Your task to perform on an android device: Open Google Chrome and click the shortcut for Amazon.com Image 0: 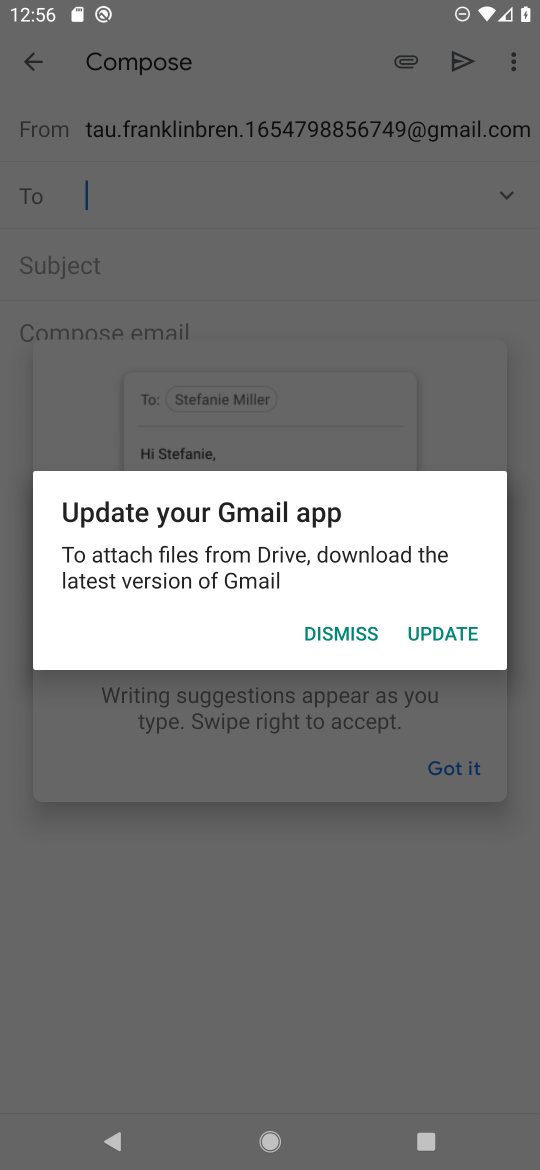
Step 0: press home button
Your task to perform on an android device: Open Google Chrome and click the shortcut for Amazon.com Image 1: 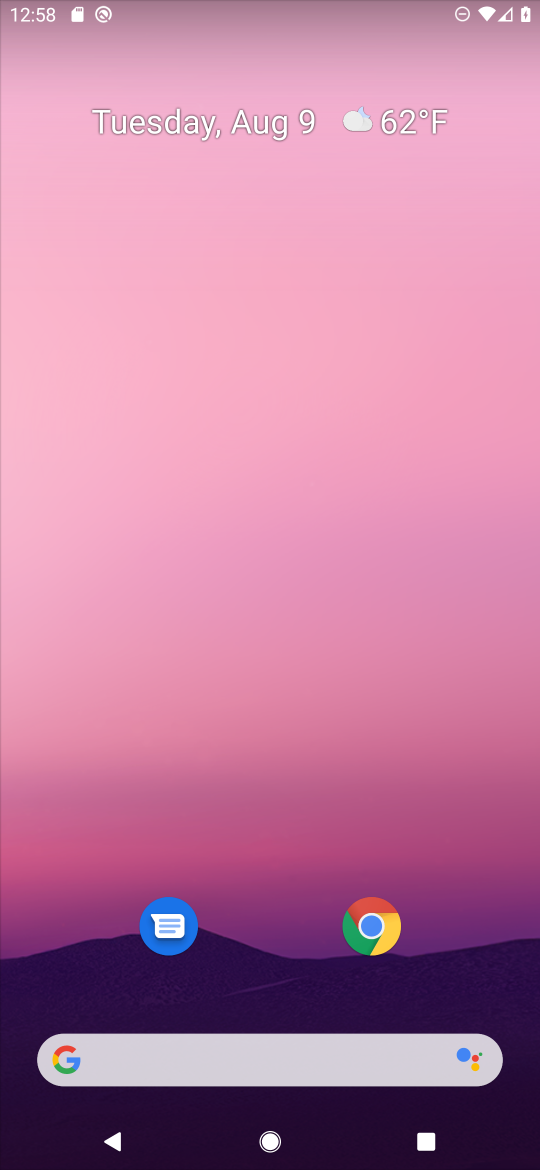
Step 1: click (367, 939)
Your task to perform on an android device: Open Google Chrome and click the shortcut for Amazon.com Image 2: 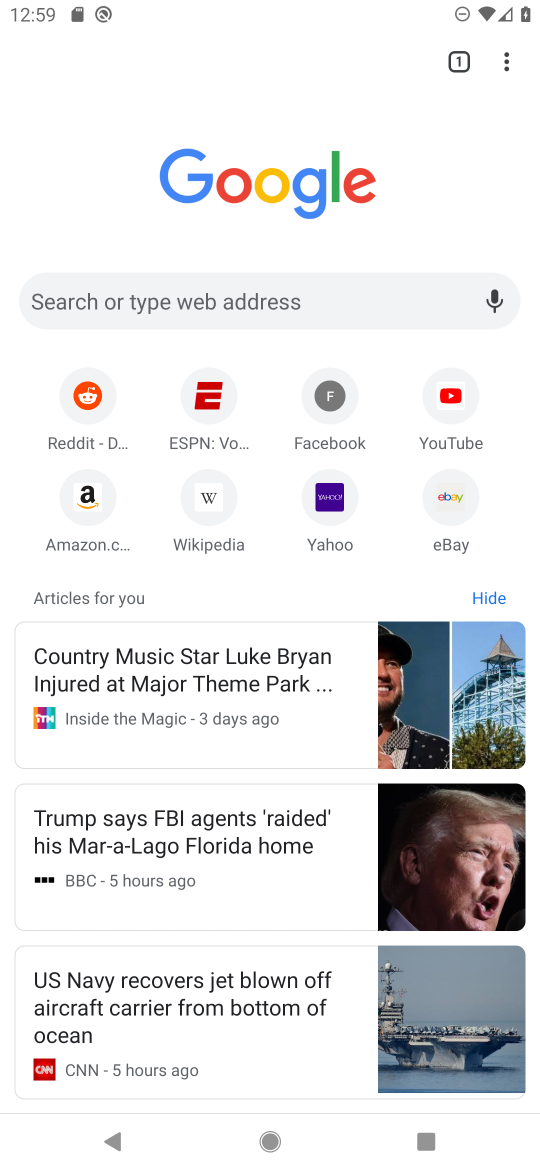
Step 2: click (78, 513)
Your task to perform on an android device: Open Google Chrome and click the shortcut for Amazon.com Image 3: 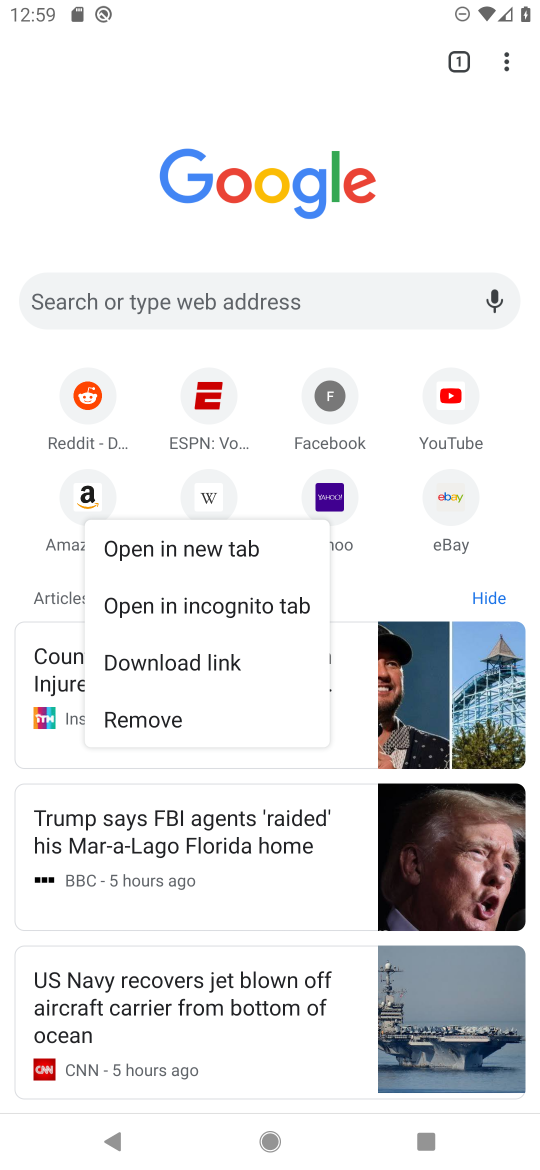
Step 3: task complete